Your task to perform on an android device: add a label to a message in the gmail app Image 0: 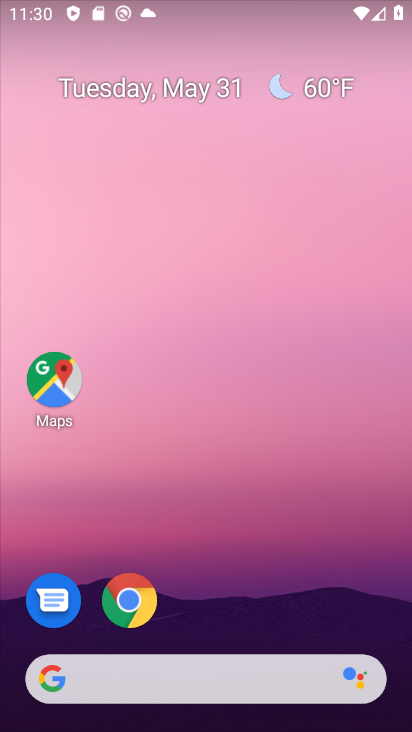
Step 0: drag from (291, 606) to (325, 86)
Your task to perform on an android device: add a label to a message in the gmail app Image 1: 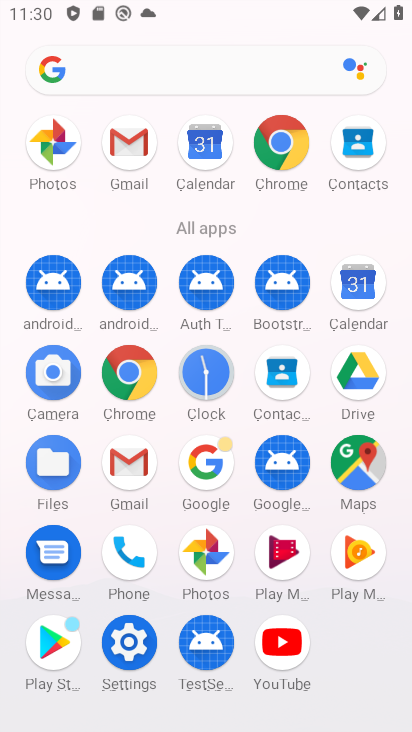
Step 1: click (130, 461)
Your task to perform on an android device: add a label to a message in the gmail app Image 2: 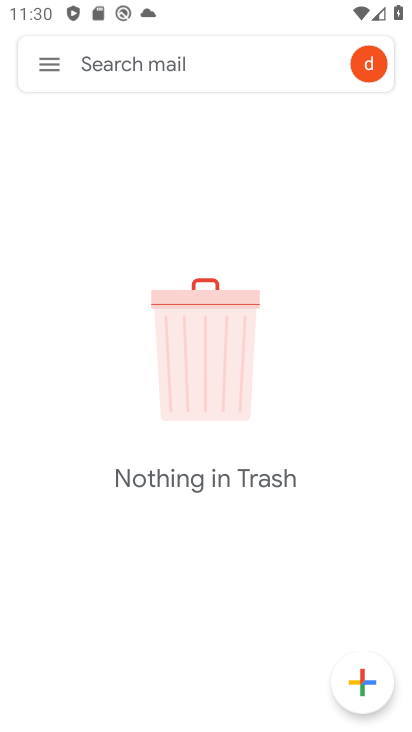
Step 2: click (55, 75)
Your task to perform on an android device: add a label to a message in the gmail app Image 3: 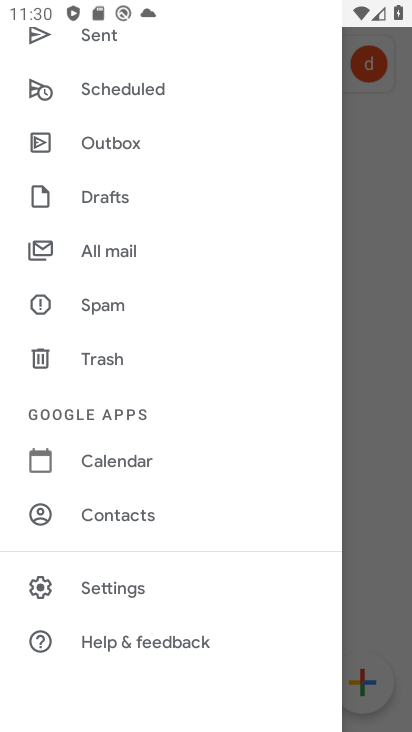
Step 3: drag from (170, 220) to (181, 334)
Your task to perform on an android device: add a label to a message in the gmail app Image 4: 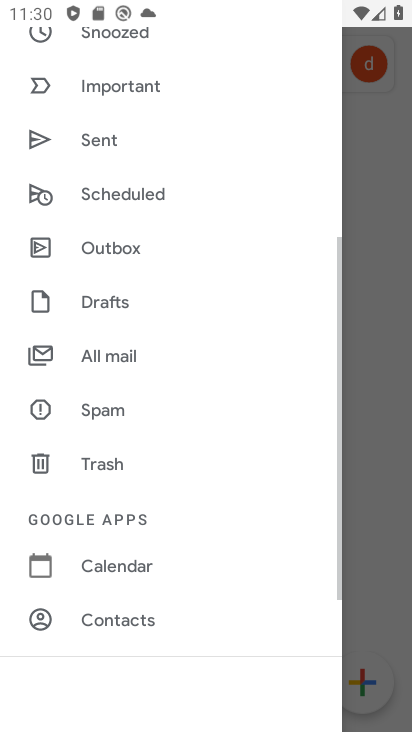
Step 4: drag from (220, 205) to (225, 311)
Your task to perform on an android device: add a label to a message in the gmail app Image 5: 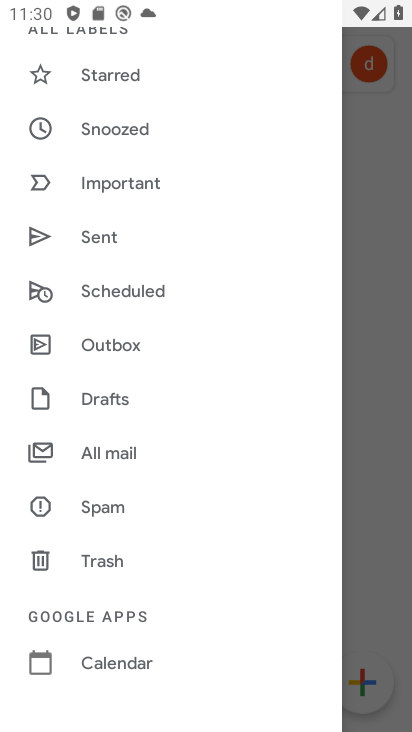
Step 5: drag from (213, 181) to (223, 284)
Your task to perform on an android device: add a label to a message in the gmail app Image 6: 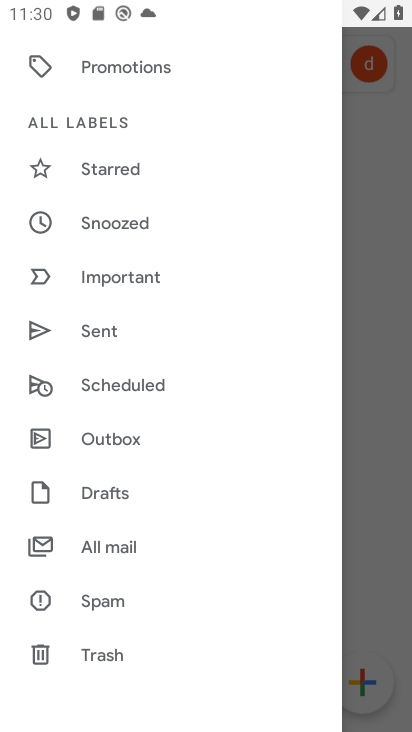
Step 6: drag from (213, 158) to (212, 263)
Your task to perform on an android device: add a label to a message in the gmail app Image 7: 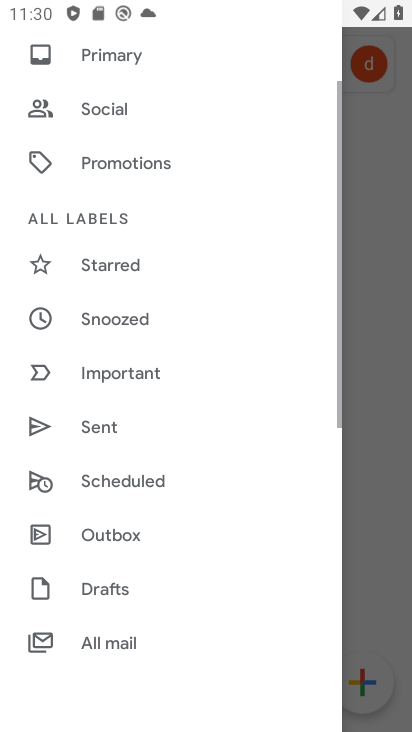
Step 7: drag from (224, 123) to (239, 246)
Your task to perform on an android device: add a label to a message in the gmail app Image 8: 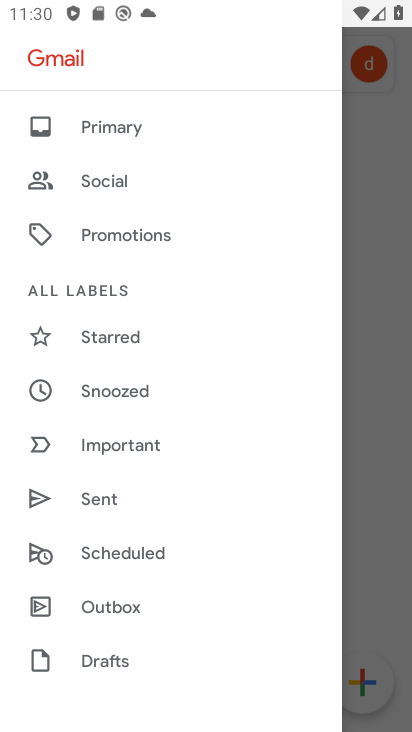
Step 8: click (157, 126)
Your task to perform on an android device: add a label to a message in the gmail app Image 9: 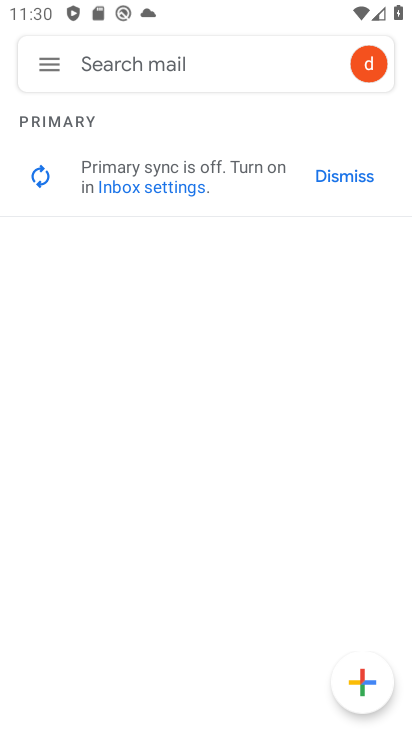
Step 9: task complete